Your task to perform on an android device: Go to Amazon Image 0: 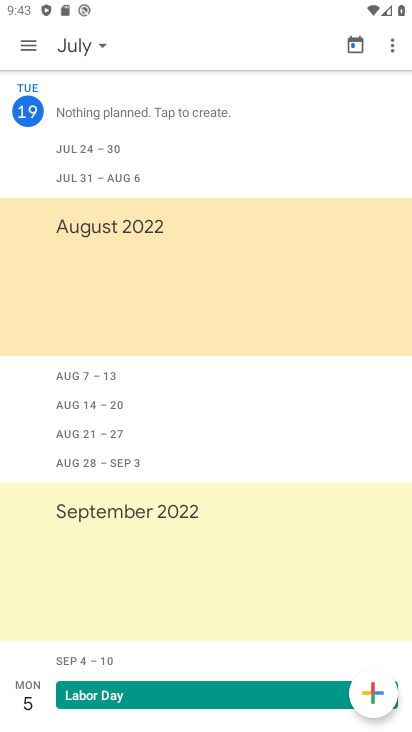
Step 0: press home button
Your task to perform on an android device: Go to Amazon Image 1: 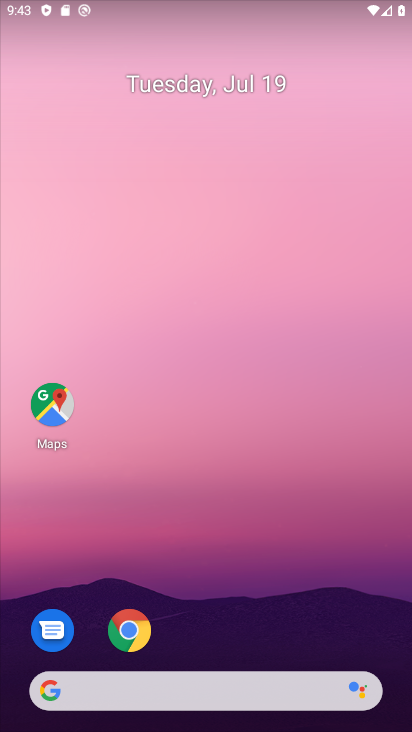
Step 1: click (144, 635)
Your task to perform on an android device: Go to Amazon Image 2: 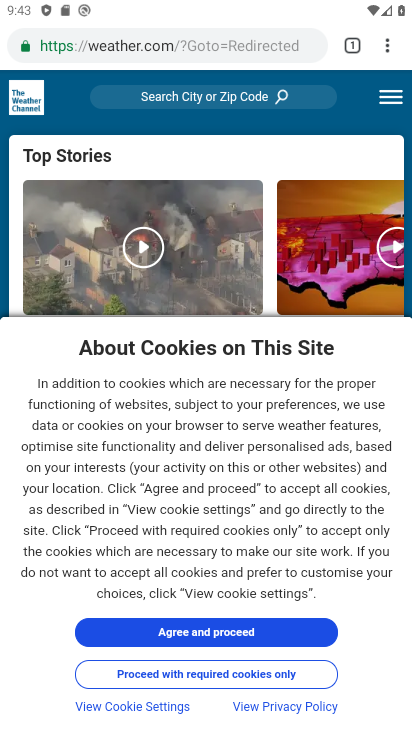
Step 2: click (353, 45)
Your task to perform on an android device: Go to Amazon Image 3: 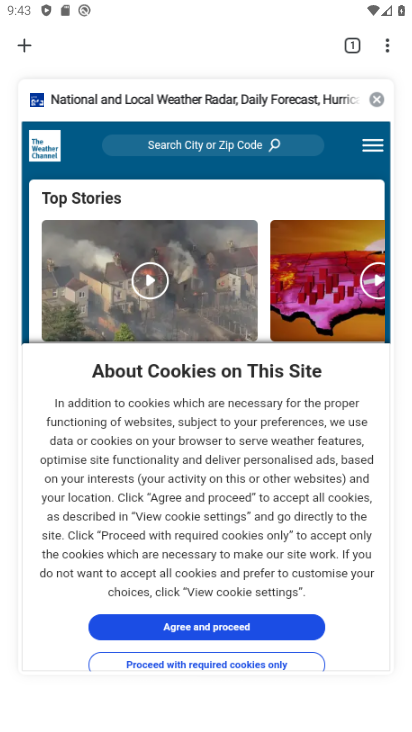
Step 3: click (381, 97)
Your task to perform on an android device: Go to Amazon Image 4: 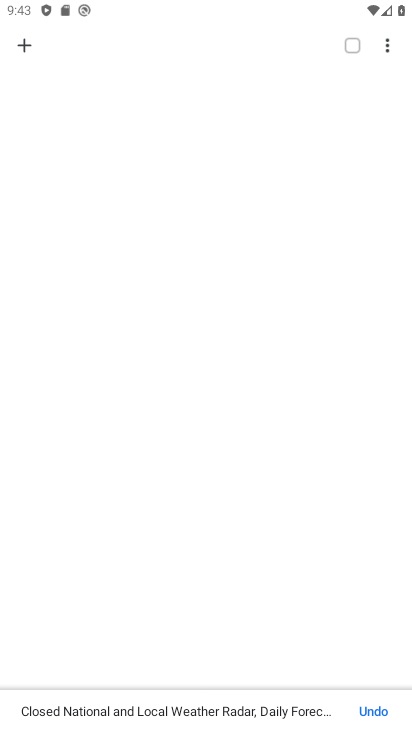
Step 4: click (26, 47)
Your task to perform on an android device: Go to Amazon Image 5: 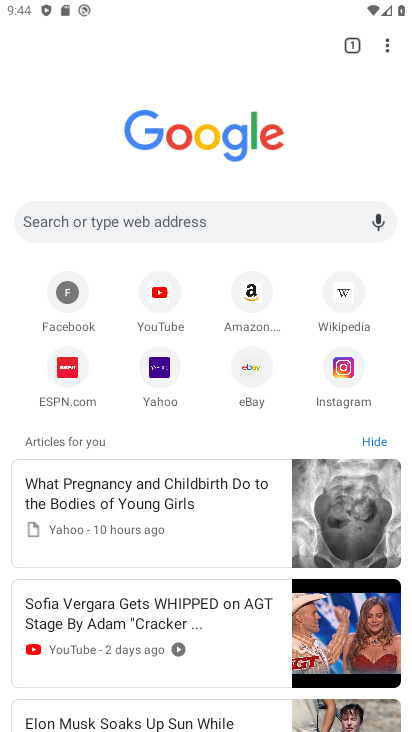
Step 5: click (235, 300)
Your task to perform on an android device: Go to Amazon Image 6: 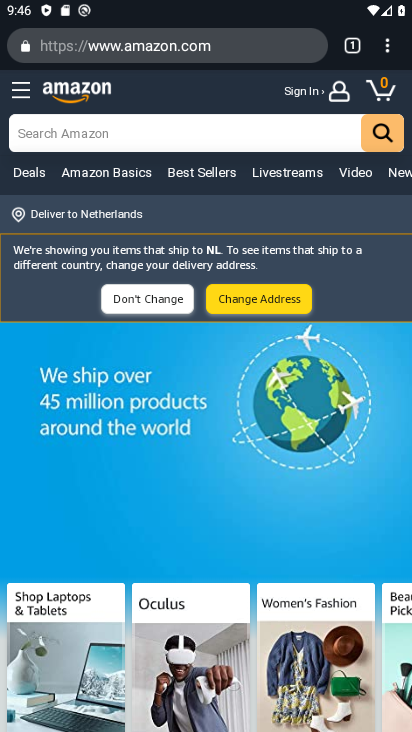
Step 6: task complete